Your task to perform on an android device: toggle airplane mode Image 0: 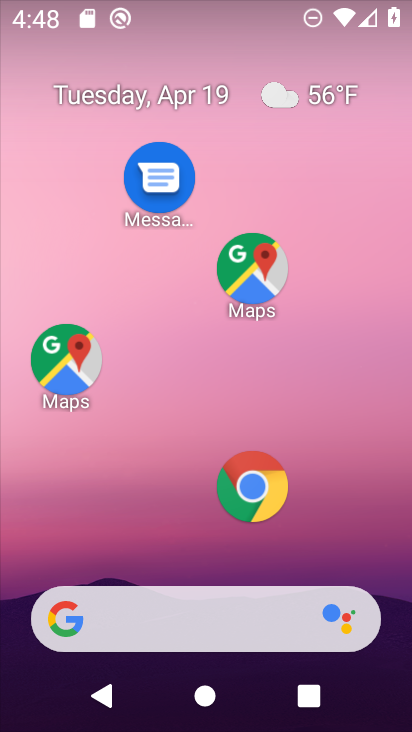
Step 0: drag from (130, 528) to (210, 93)
Your task to perform on an android device: toggle airplane mode Image 1: 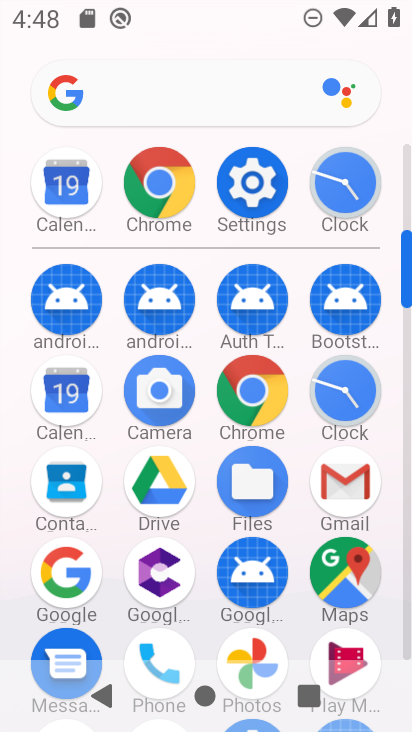
Step 1: click (263, 203)
Your task to perform on an android device: toggle airplane mode Image 2: 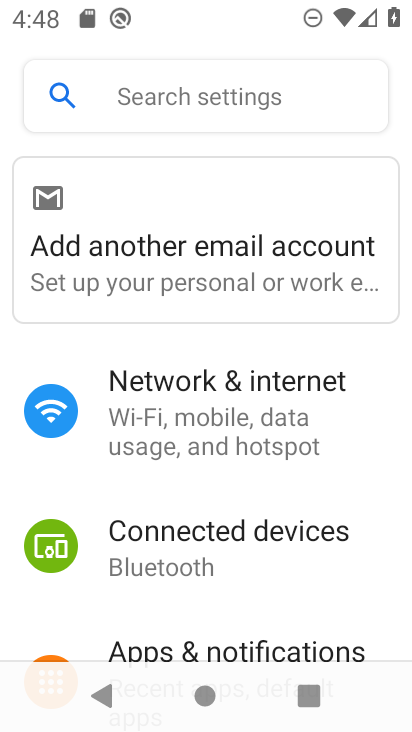
Step 2: drag from (214, 495) to (253, 318)
Your task to perform on an android device: toggle airplane mode Image 3: 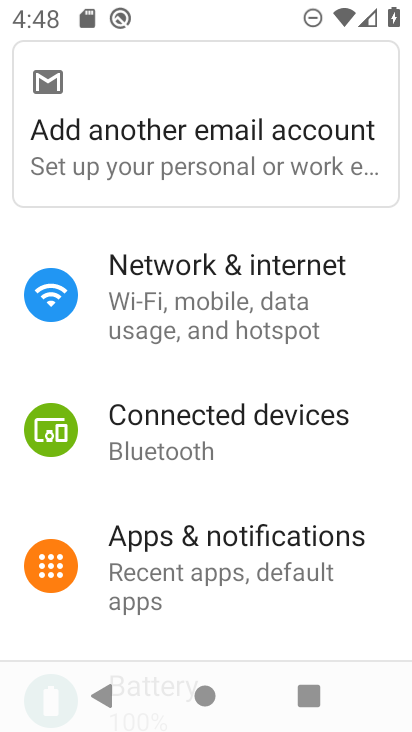
Step 3: click (241, 324)
Your task to perform on an android device: toggle airplane mode Image 4: 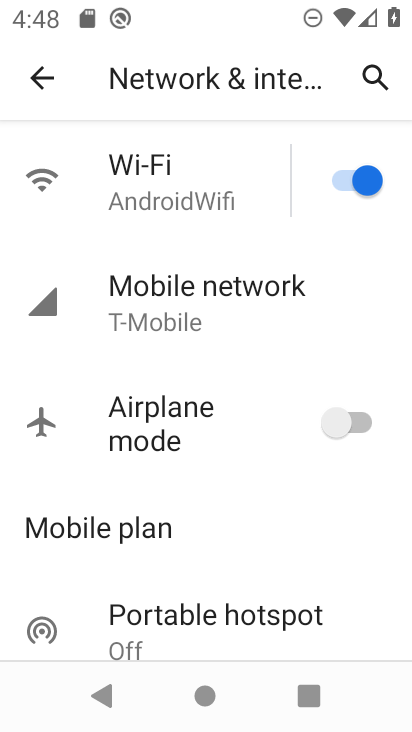
Step 4: click (315, 428)
Your task to perform on an android device: toggle airplane mode Image 5: 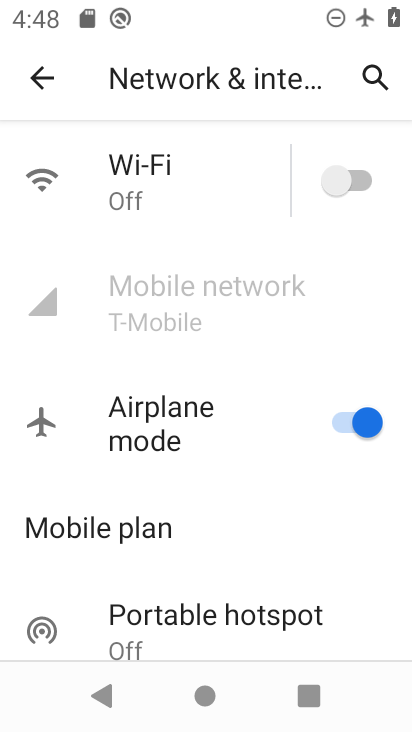
Step 5: task complete